Your task to perform on an android device: Open the phone app and click the voicemail tab. Image 0: 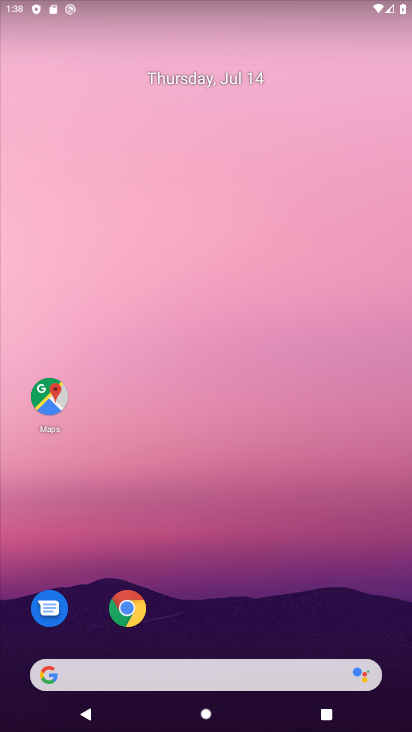
Step 0: drag from (209, 679) to (285, 191)
Your task to perform on an android device: Open the phone app and click the voicemail tab. Image 1: 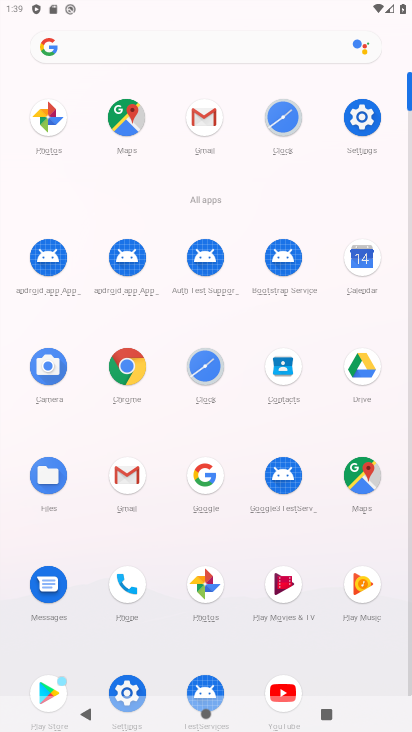
Step 1: click (123, 586)
Your task to perform on an android device: Open the phone app and click the voicemail tab. Image 2: 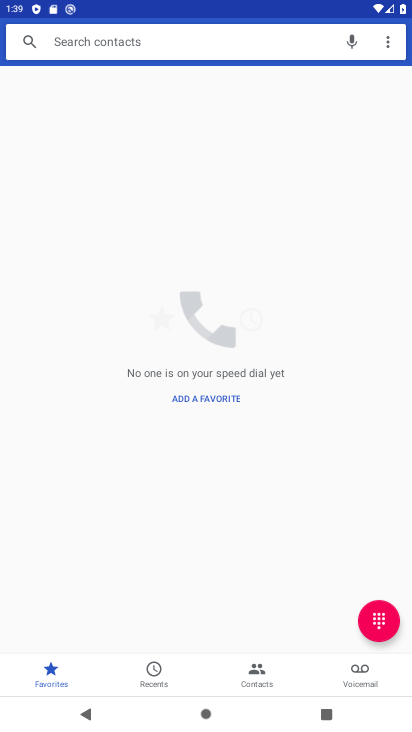
Step 2: click (361, 672)
Your task to perform on an android device: Open the phone app and click the voicemail tab. Image 3: 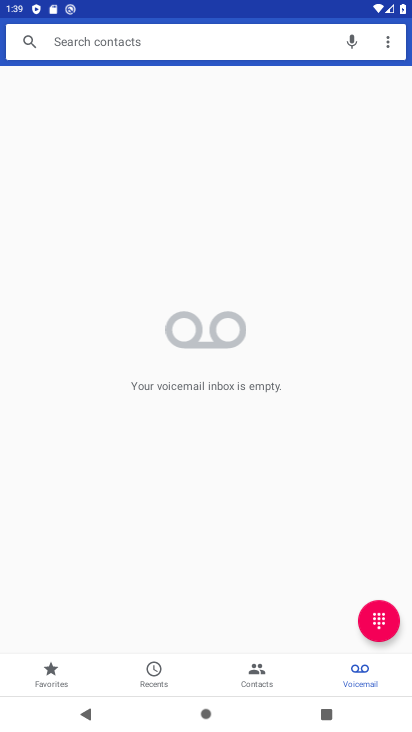
Step 3: task complete